Your task to perform on an android device: Open Google Chrome and open the bookmarks view Image 0: 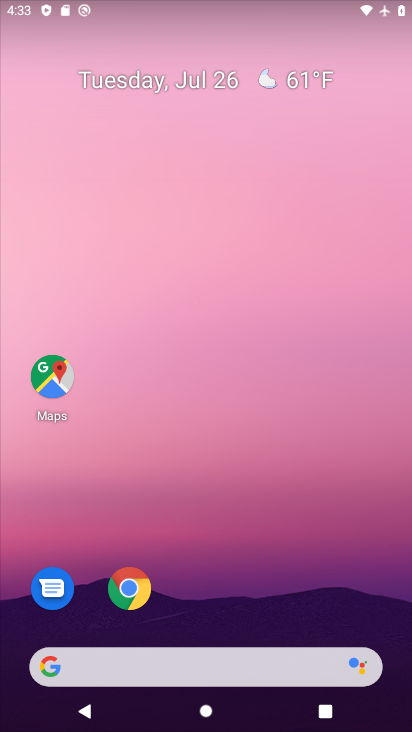
Step 0: drag from (244, 532) to (185, 17)
Your task to perform on an android device: Open Google Chrome and open the bookmarks view Image 1: 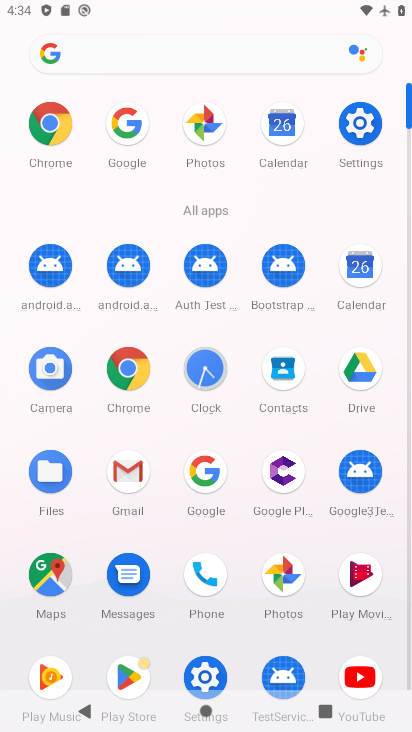
Step 1: click (48, 133)
Your task to perform on an android device: Open Google Chrome and open the bookmarks view Image 2: 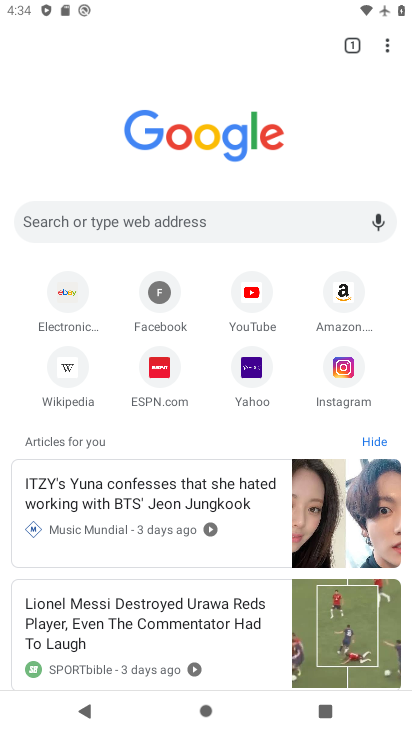
Step 2: drag from (391, 57) to (270, 173)
Your task to perform on an android device: Open Google Chrome and open the bookmarks view Image 3: 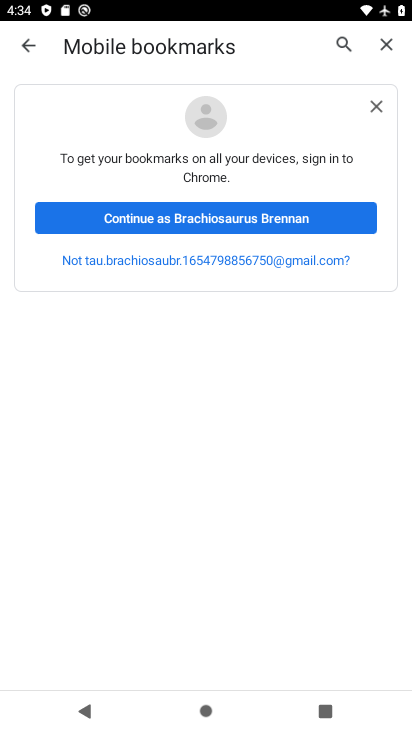
Step 3: click (238, 210)
Your task to perform on an android device: Open Google Chrome and open the bookmarks view Image 4: 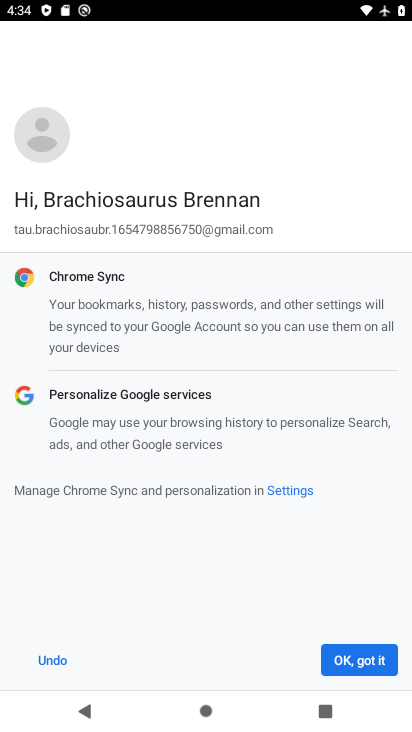
Step 4: click (341, 659)
Your task to perform on an android device: Open Google Chrome and open the bookmarks view Image 5: 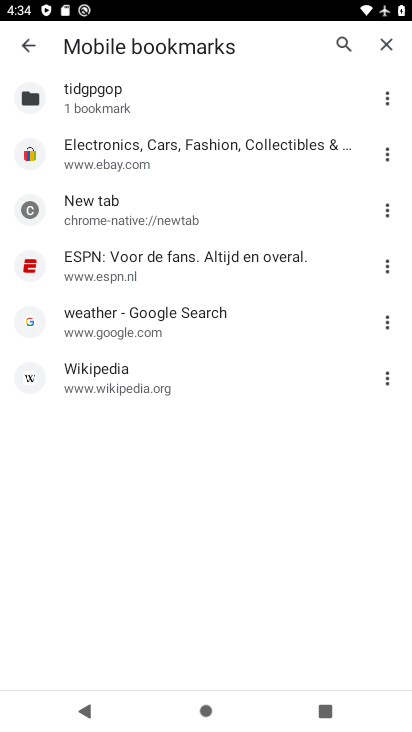
Step 5: task complete